Your task to perform on an android device: toggle sleep mode Image 0: 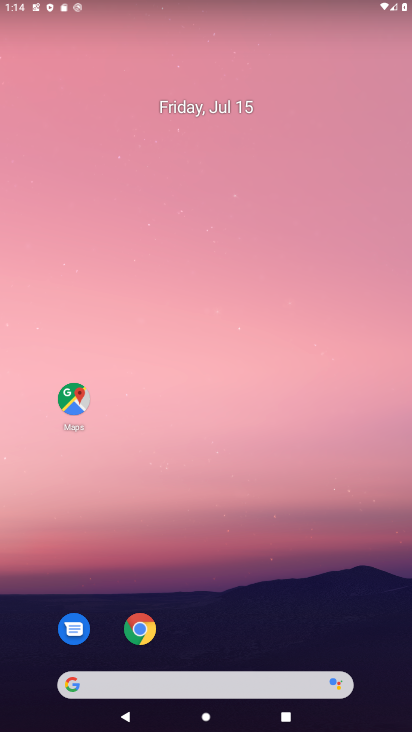
Step 0: drag from (344, 580) to (342, 52)
Your task to perform on an android device: toggle sleep mode Image 1: 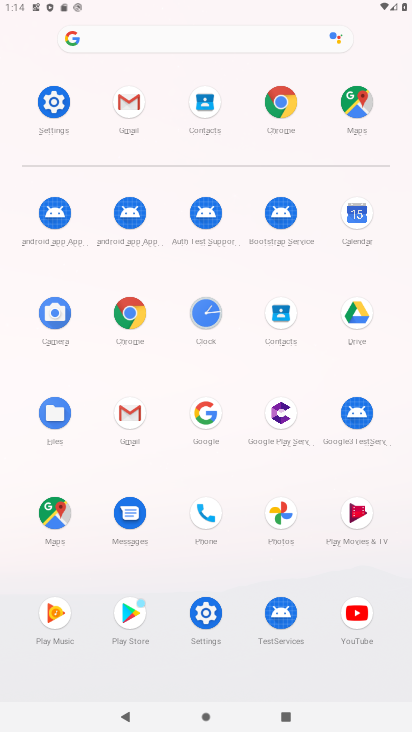
Step 1: click (68, 96)
Your task to perform on an android device: toggle sleep mode Image 2: 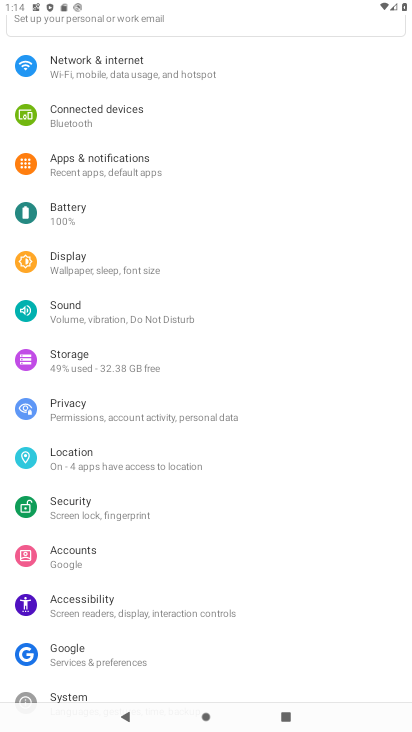
Step 2: click (117, 273)
Your task to perform on an android device: toggle sleep mode Image 3: 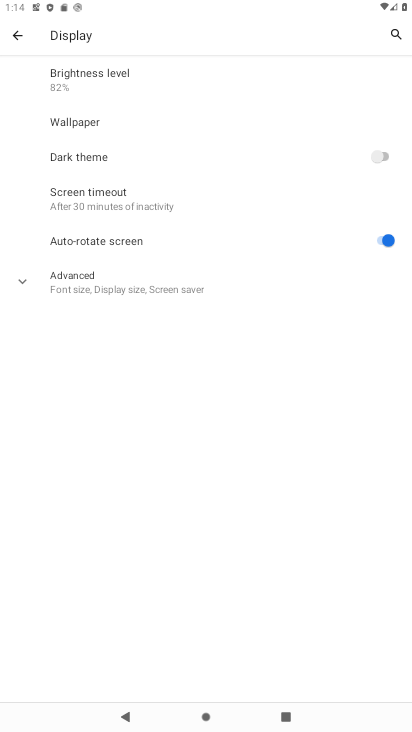
Step 3: click (131, 205)
Your task to perform on an android device: toggle sleep mode Image 4: 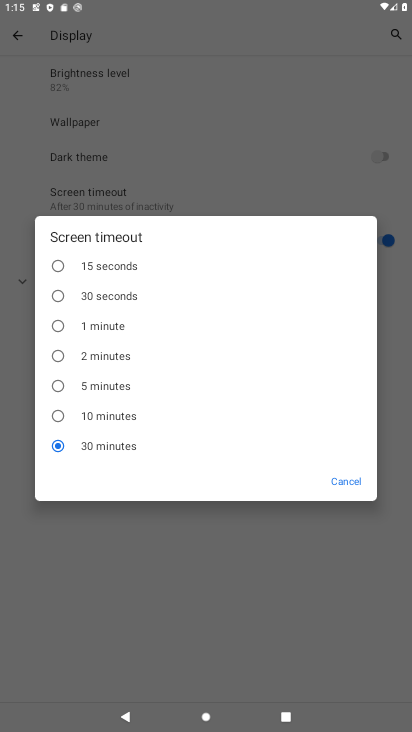
Step 4: click (107, 410)
Your task to perform on an android device: toggle sleep mode Image 5: 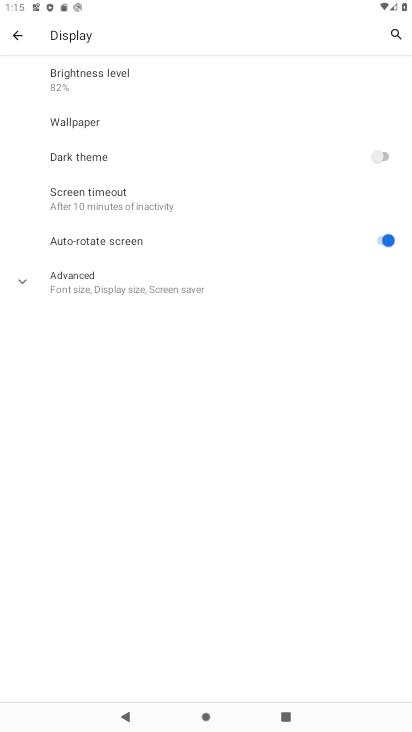
Step 5: task complete